Your task to perform on an android device: Search for Italian restaurants on Maps Image 0: 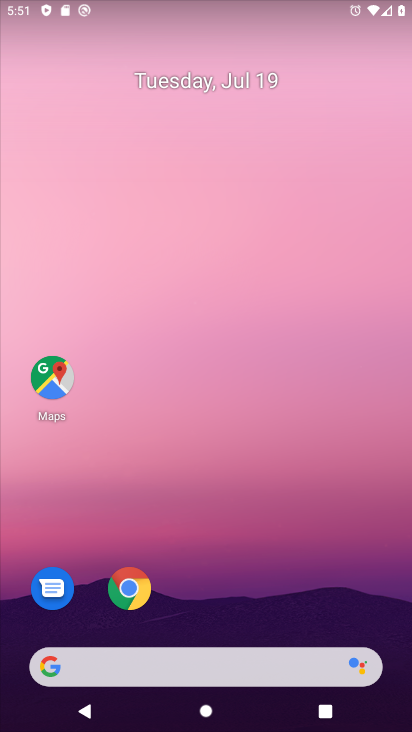
Step 0: click (54, 366)
Your task to perform on an android device: Search for Italian restaurants on Maps Image 1: 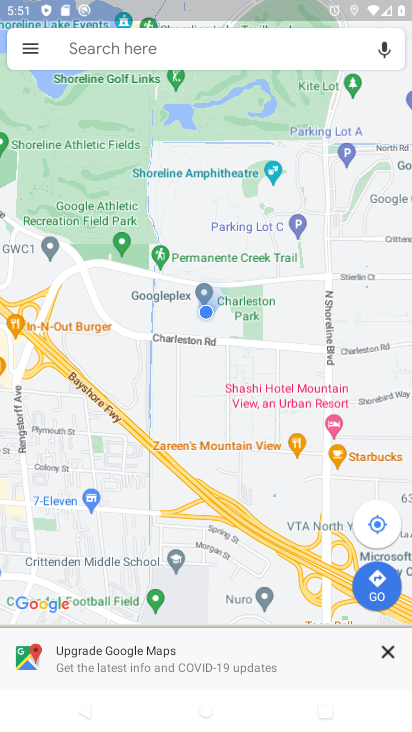
Step 1: click (168, 51)
Your task to perform on an android device: Search for Italian restaurants on Maps Image 2: 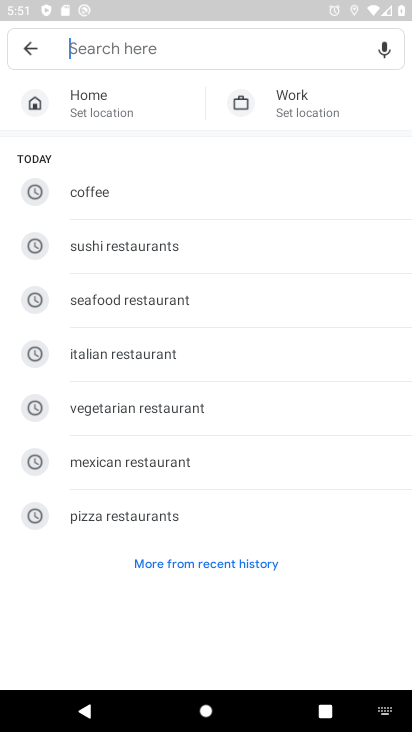
Step 2: click (150, 354)
Your task to perform on an android device: Search for Italian restaurants on Maps Image 3: 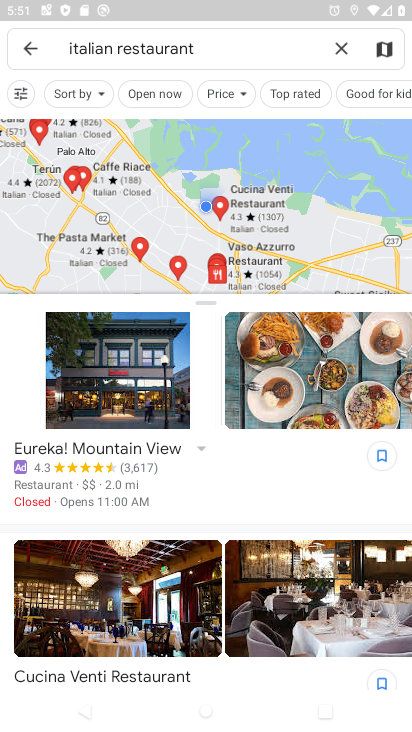
Step 3: task complete